Your task to perform on an android device: Open network settings Image 0: 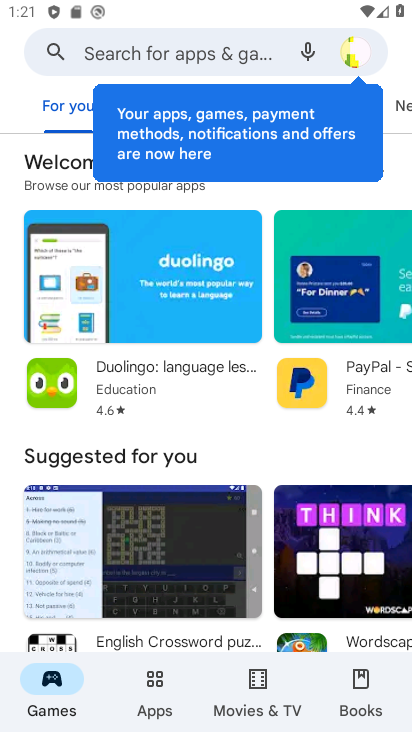
Step 0: press home button
Your task to perform on an android device: Open network settings Image 1: 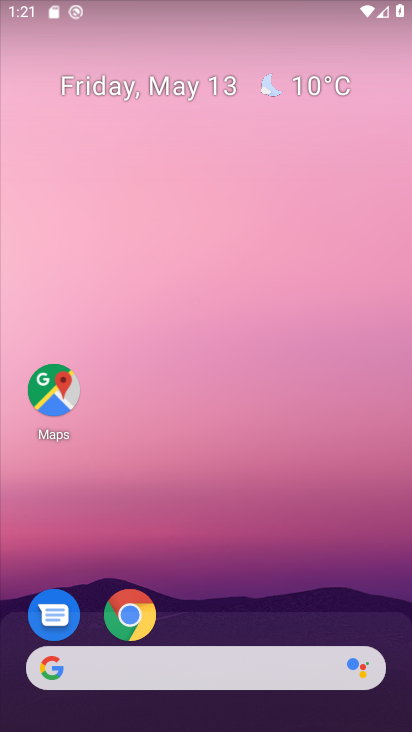
Step 1: drag from (210, 600) to (320, 175)
Your task to perform on an android device: Open network settings Image 2: 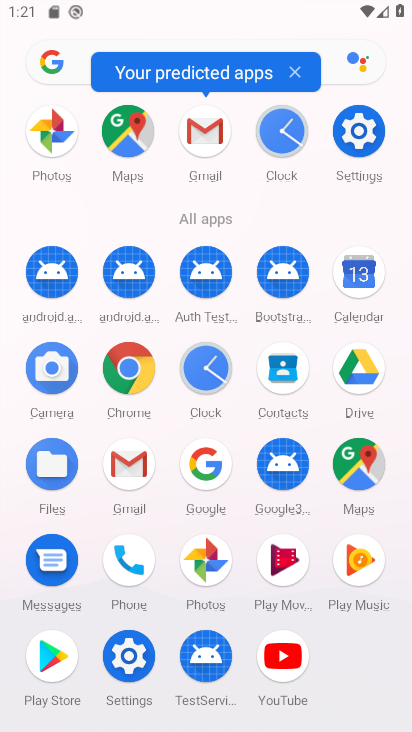
Step 2: click (141, 668)
Your task to perform on an android device: Open network settings Image 3: 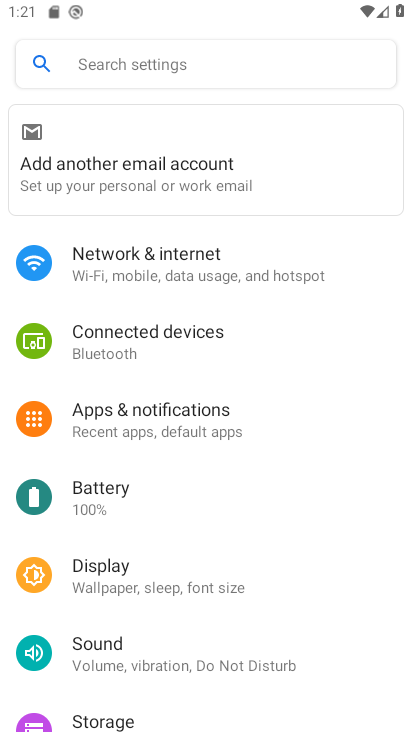
Step 3: click (228, 271)
Your task to perform on an android device: Open network settings Image 4: 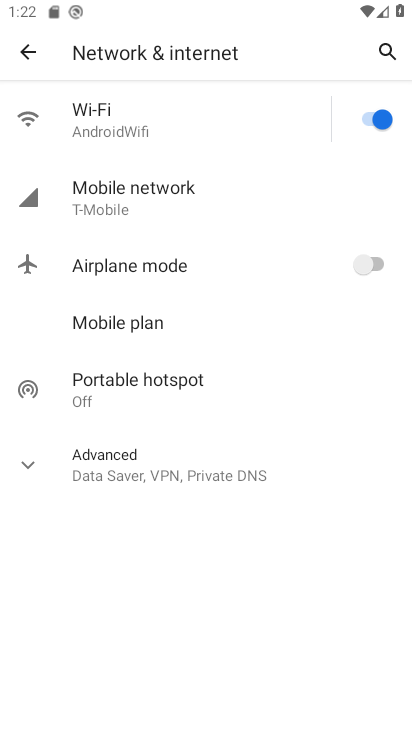
Step 4: click (239, 205)
Your task to perform on an android device: Open network settings Image 5: 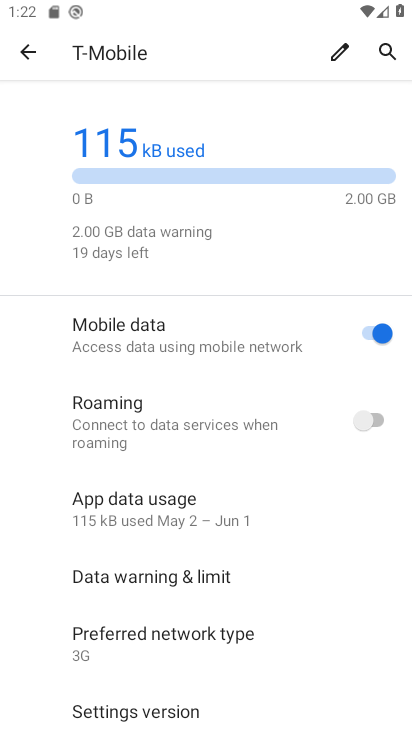
Step 5: task complete